Your task to perform on an android device: turn pop-ups off in chrome Image 0: 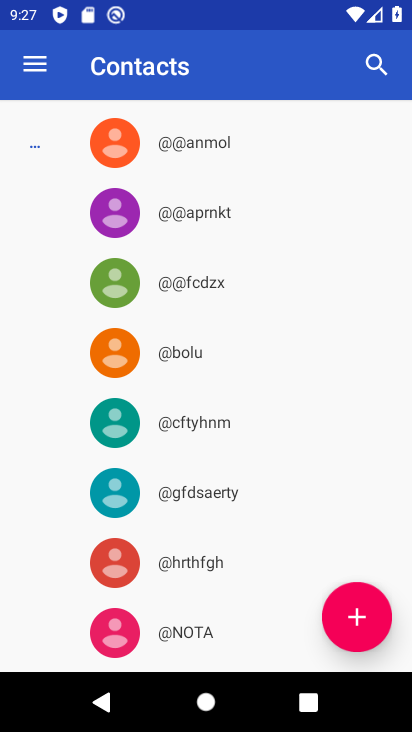
Step 0: press back button
Your task to perform on an android device: turn pop-ups off in chrome Image 1: 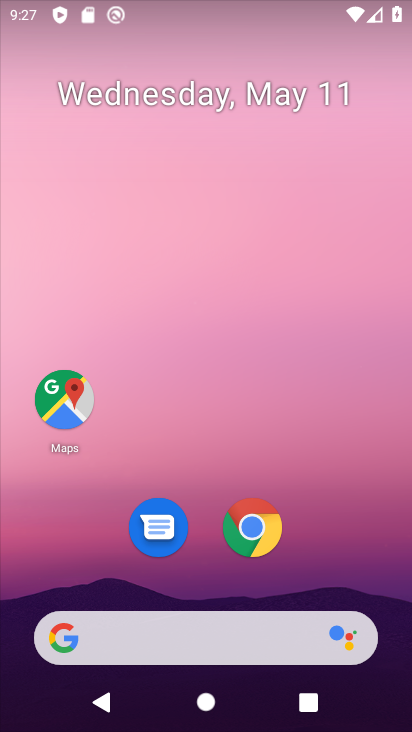
Step 1: click (261, 531)
Your task to perform on an android device: turn pop-ups off in chrome Image 2: 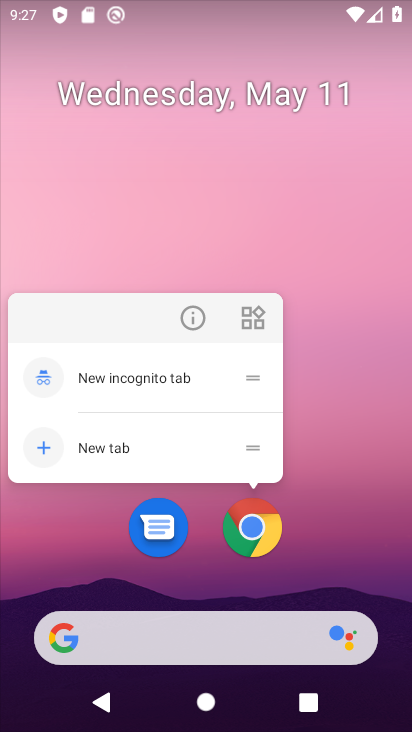
Step 2: click (253, 549)
Your task to perform on an android device: turn pop-ups off in chrome Image 3: 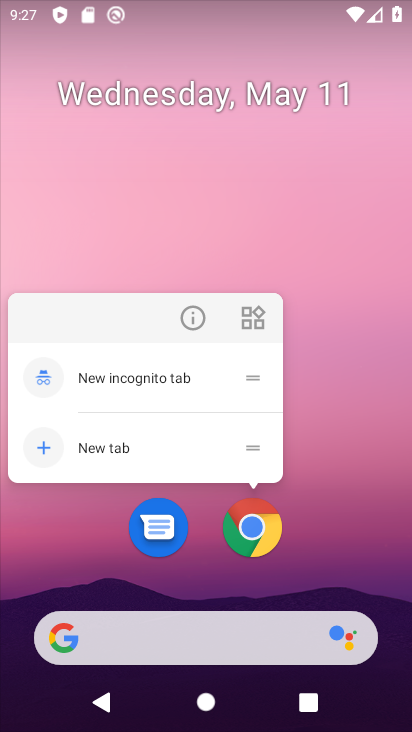
Step 3: click (255, 539)
Your task to perform on an android device: turn pop-ups off in chrome Image 4: 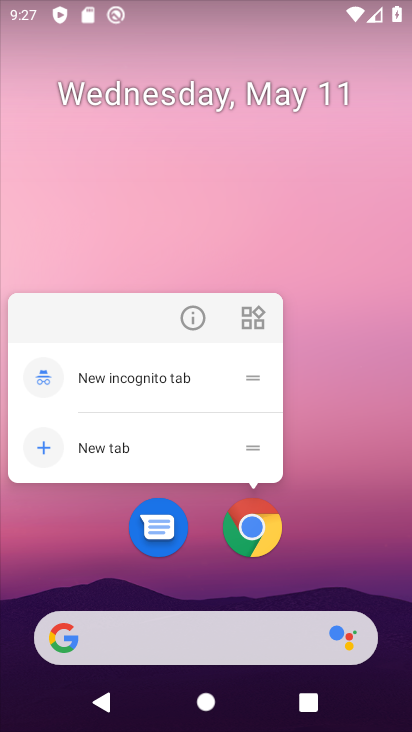
Step 4: click (255, 528)
Your task to perform on an android device: turn pop-ups off in chrome Image 5: 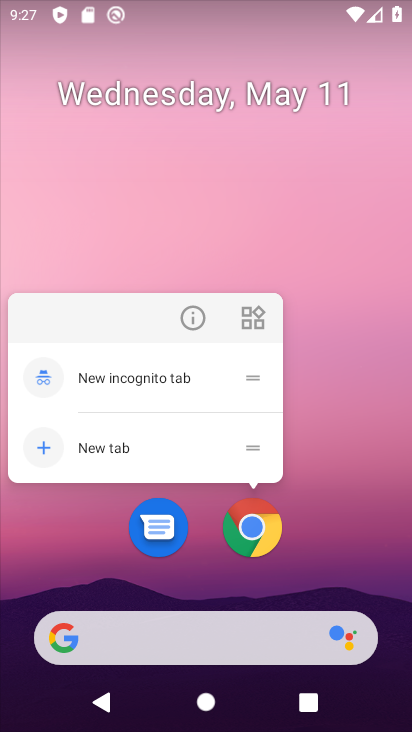
Step 5: click (255, 527)
Your task to perform on an android device: turn pop-ups off in chrome Image 6: 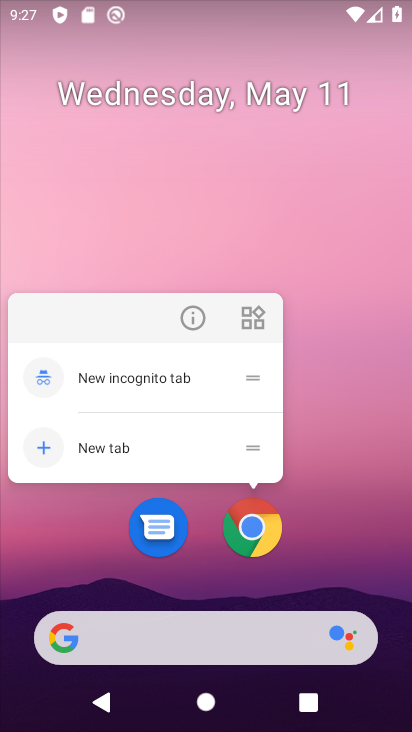
Step 6: click (266, 530)
Your task to perform on an android device: turn pop-ups off in chrome Image 7: 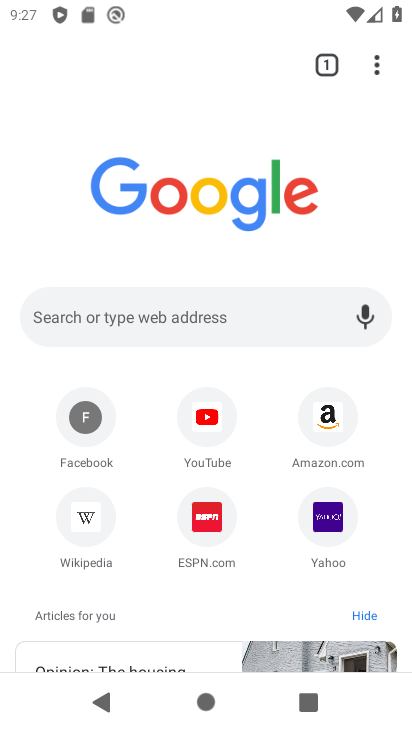
Step 7: drag from (383, 67) to (295, 554)
Your task to perform on an android device: turn pop-ups off in chrome Image 8: 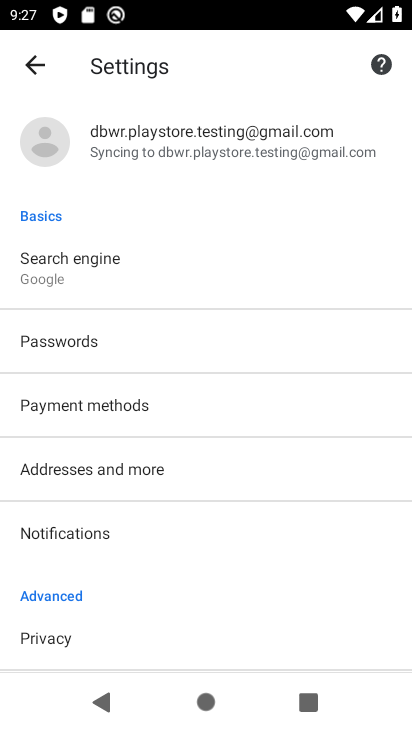
Step 8: click (139, 185)
Your task to perform on an android device: turn pop-ups off in chrome Image 9: 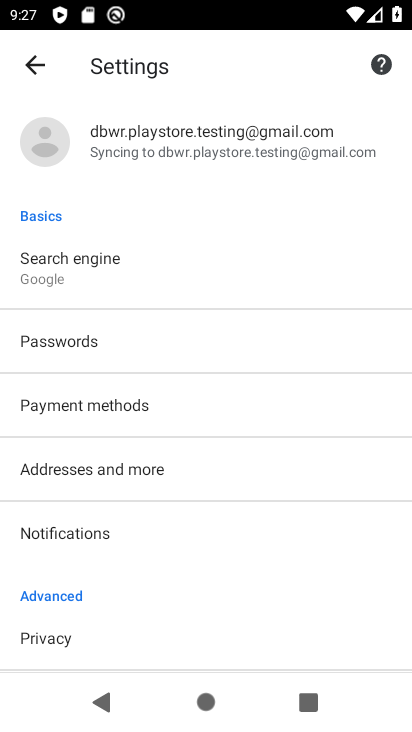
Step 9: drag from (170, 589) to (262, 235)
Your task to perform on an android device: turn pop-ups off in chrome Image 10: 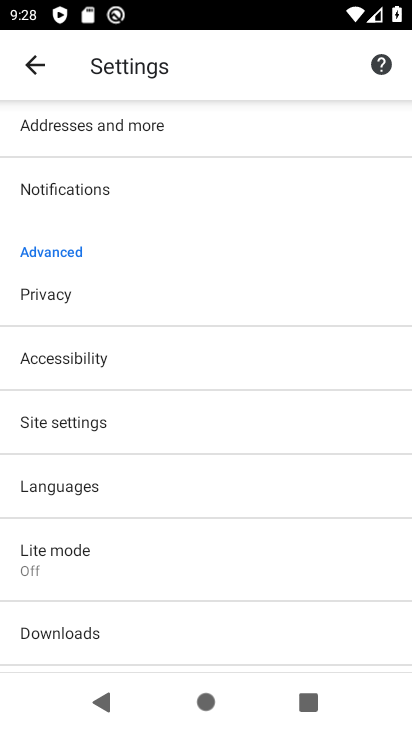
Step 10: click (152, 423)
Your task to perform on an android device: turn pop-ups off in chrome Image 11: 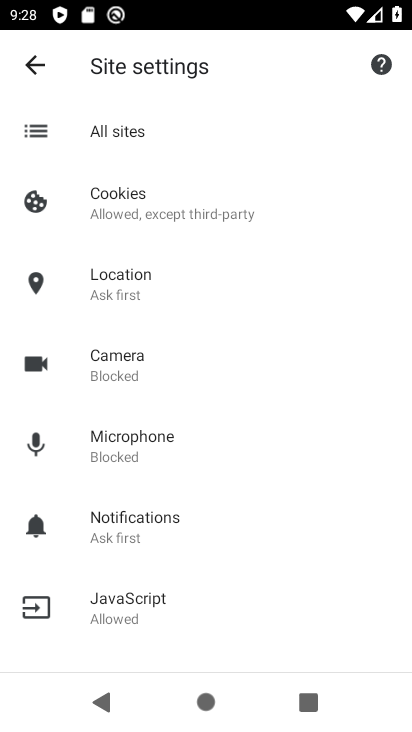
Step 11: drag from (192, 548) to (248, 239)
Your task to perform on an android device: turn pop-ups off in chrome Image 12: 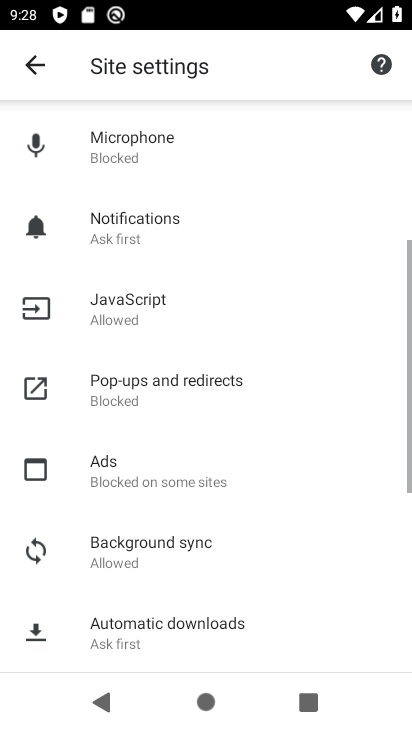
Step 12: drag from (265, 465) to (272, 515)
Your task to perform on an android device: turn pop-ups off in chrome Image 13: 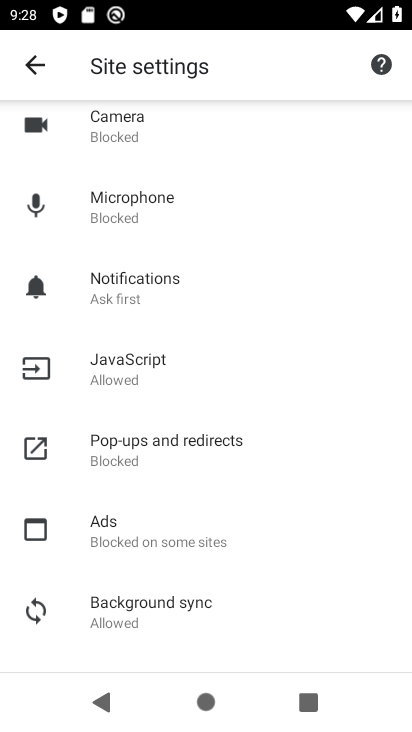
Step 13: click (267, 449)
Your task to perform on an android device: turn pop-ups off in chrome Image 14: 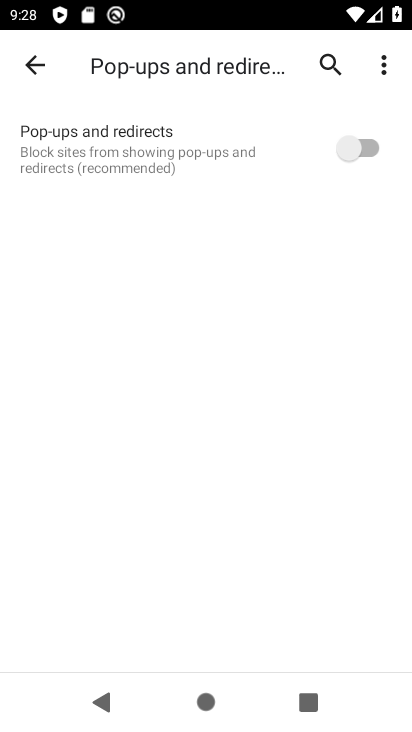
Step 14: task complete